Your task to perform on an android device: Go to settings Image 0: 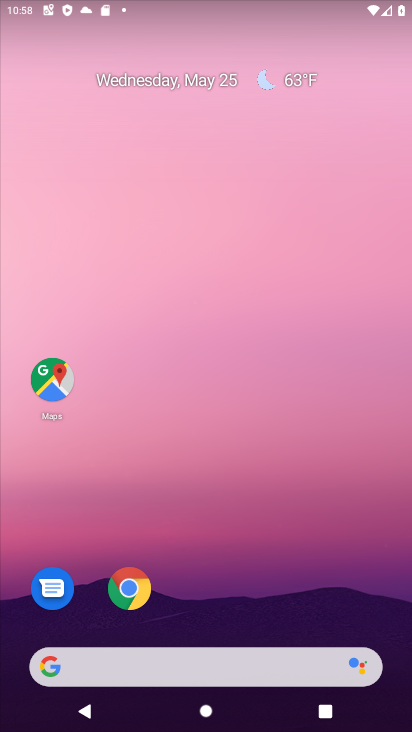
Step 0: drag from (322, 585) to (337, 253)
Your task to perform on an android device: Go to settings Image 1: 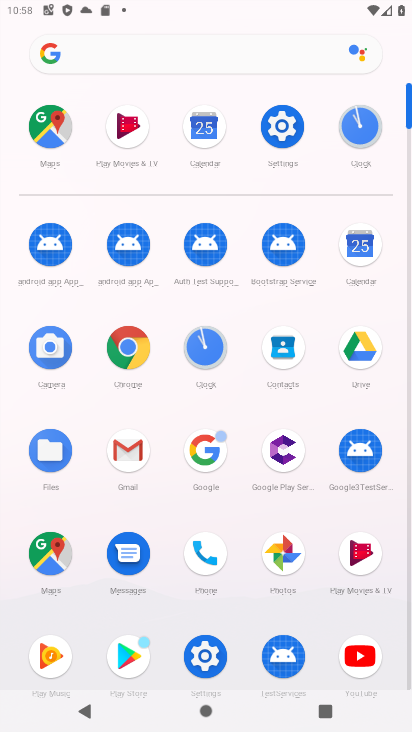
Step 1: click (204, 640)
Your task to perform on an android device: Go to settings Image 2: 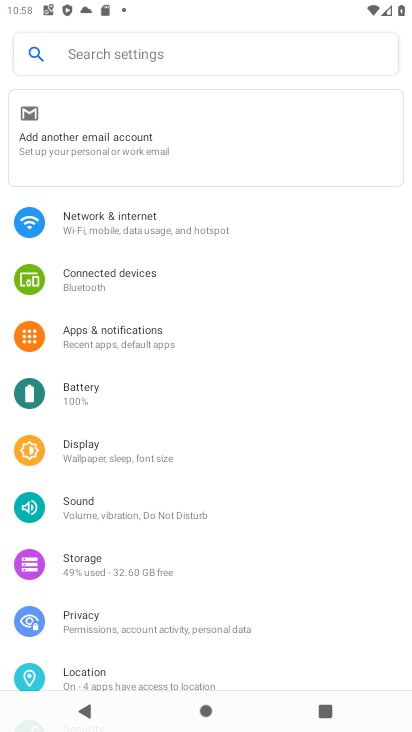
Step 2: task complete